Your task to perform on an android device: toggle translation in the chrome app Image 0: 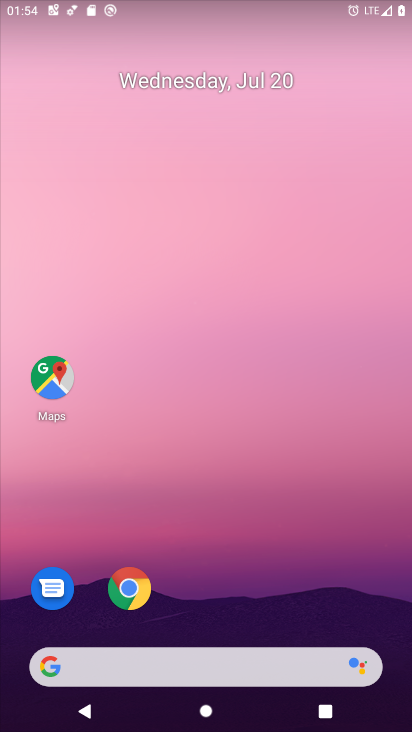
Step 0: drag from (310, 602) to (325, 207)
Your task to perform on an android device: toggle translation in the chrome app Image 1: 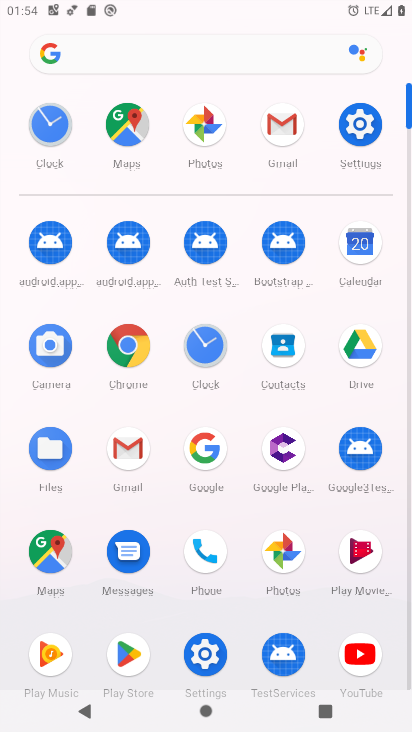
Step 1: click (133, 340)
Your task to perform on an android device: toggle translation in the chrome app Image 2: 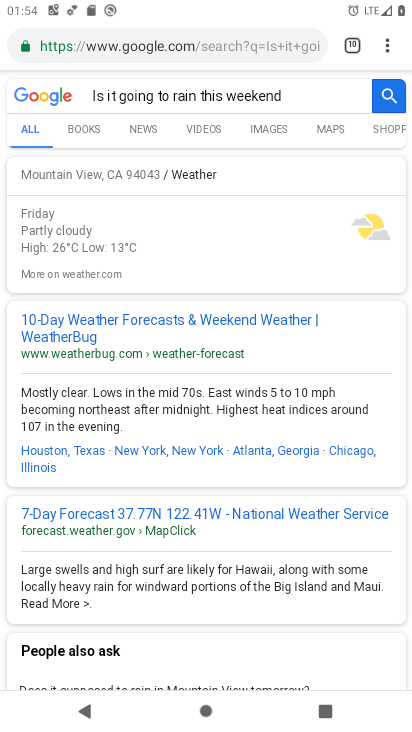
Step 2: click (395, 30)
Your task to perform on an android device: toggle translation in the chrome app Image 3: 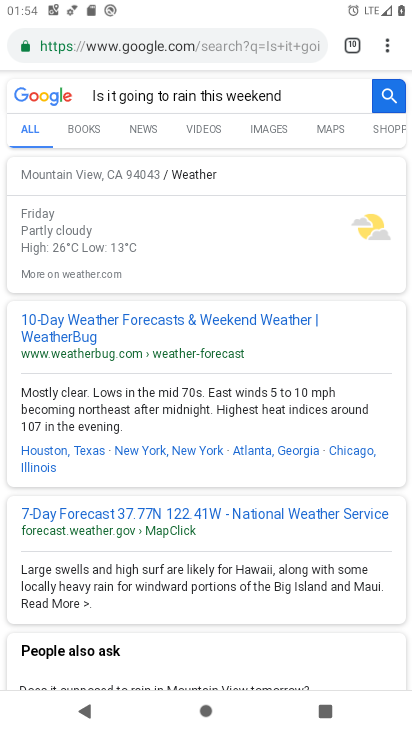
Step 3: click (390, 44)
Your task to perform on an android device: toggle translation in the chrome app Image 4: 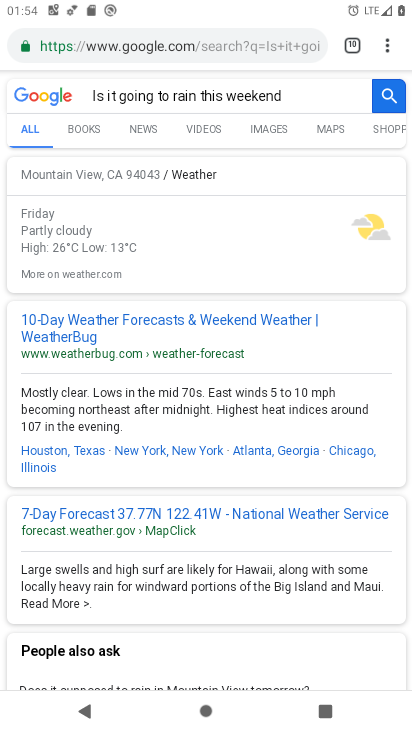
Step 4: click (390, 44)
Your task to perform on an android device: toggle translation in the chrome app Image 5: 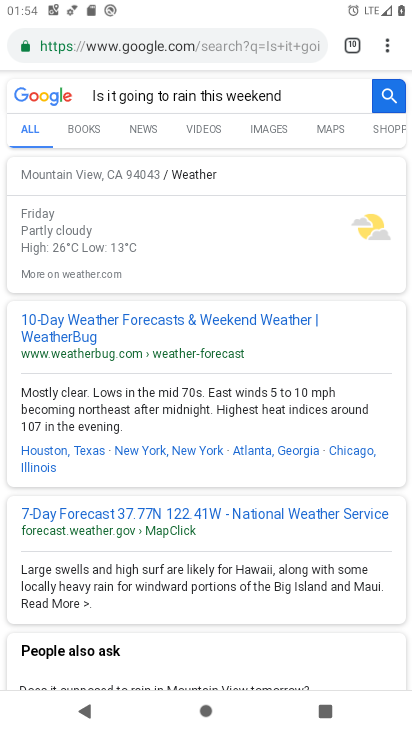
Step 5: click (390, 44)
Your task to perform on an android device: toggle translation in the chrome app Image 6: 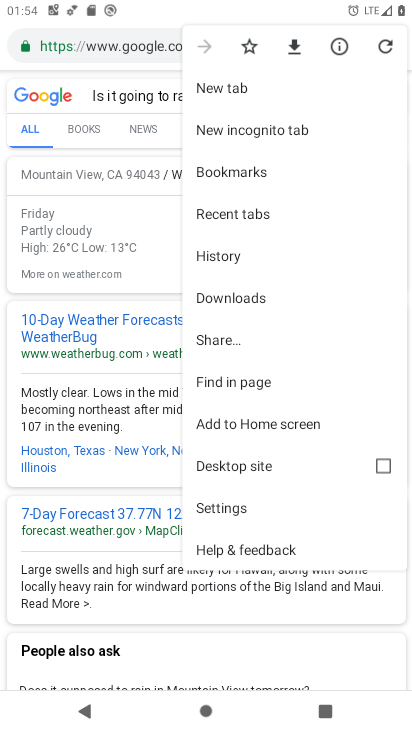
Step 6: click (241, 506)
Your task to perform on an android device: toggle translation in the chrome app Image 7: 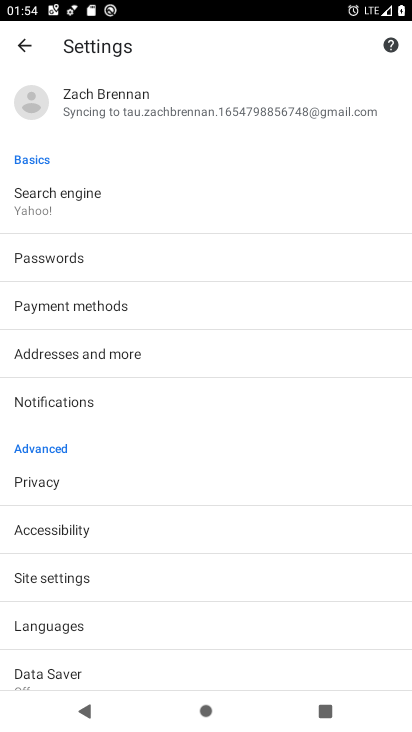
Step 7: click (77, 612)
Your task to perform on an android device: toggle translation in the chrome app Image 8: 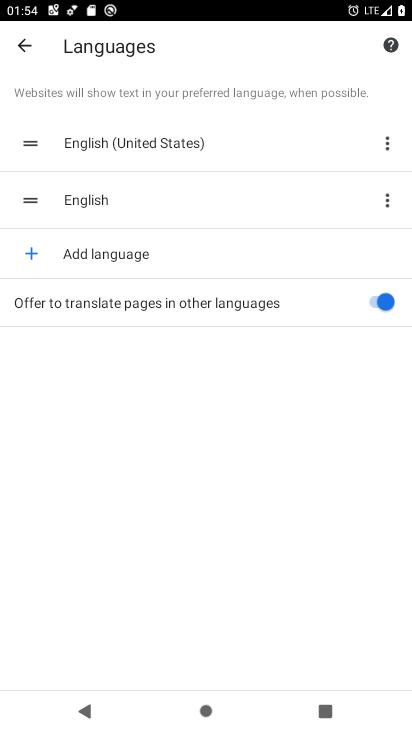
Step 8: click (387, 284)
Your task to perform on an android device: toggle translation in the chrome app Image 9: 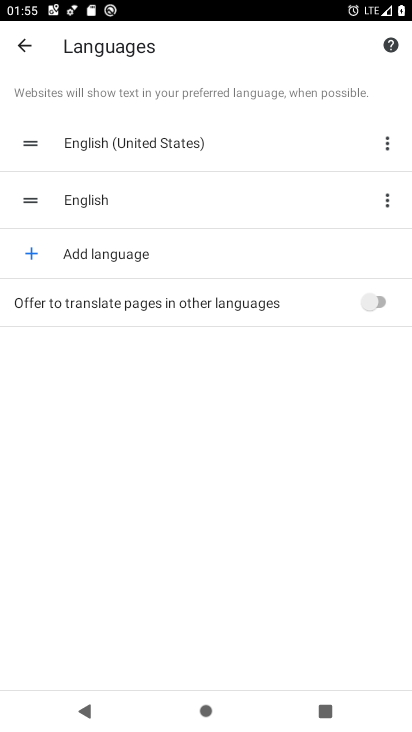
Step 9: task complete